Your task to perform on an android device: turn off priority inbox in the gmail app Image 0: 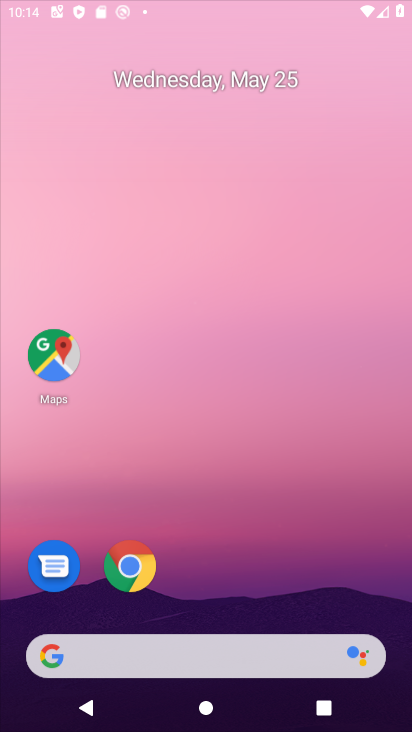
Step 0: click (135, 177)
Your task to perform on an android device: turn off priority inbox in the gmail app Image 1: 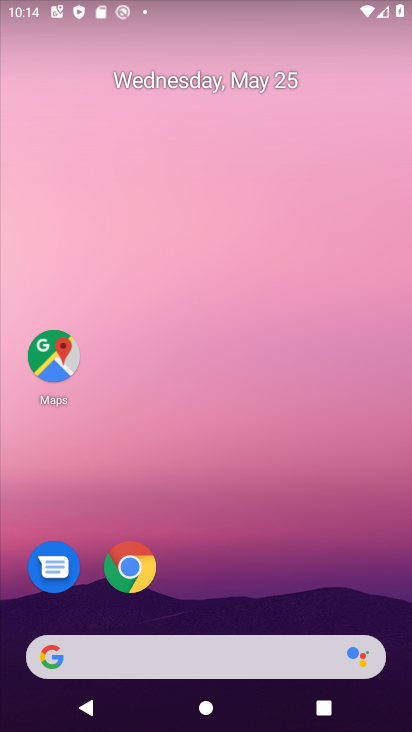
Step 1: drag from (248, 491) to (176, 189)
Your task to perform on an android device: turn off priority inbox in the gmail app Image 2: 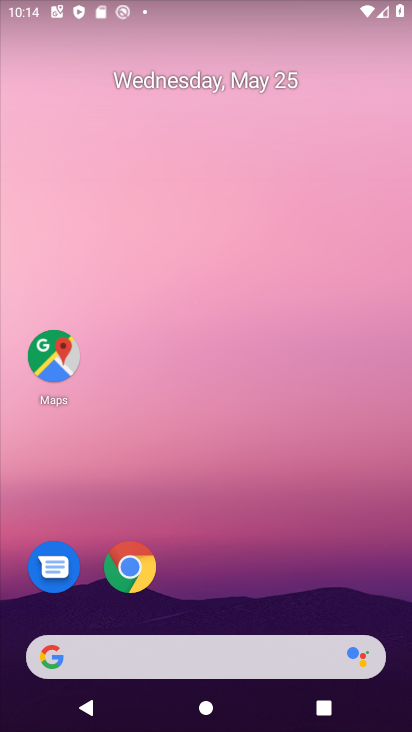
Step 2: drag from (226, 494) to (234, 0)
Your task to perform on an android device: turn off priority inbox in the gmail app Image 3: 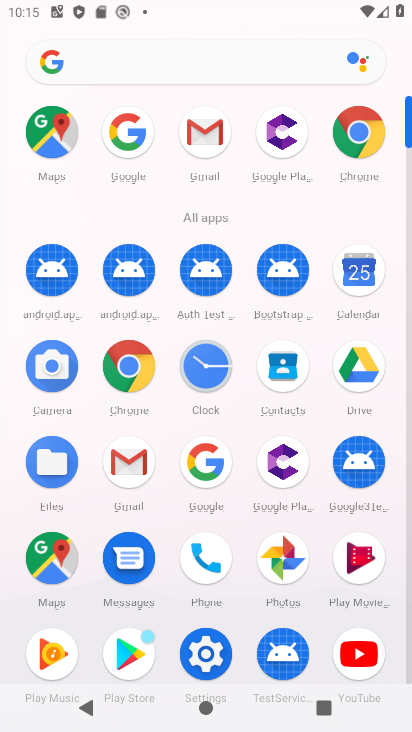
Step 3: click (122, 469)
Your task to perform on an android device: turn off priority inbox in the gmail app Image 4: 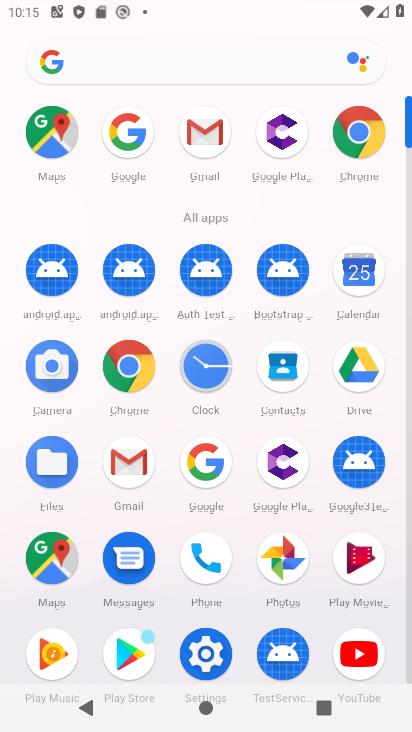
Step 4: click (138, 462)
Your task to perform on an android device: turn off priority inbox in the gmail app Image 5: 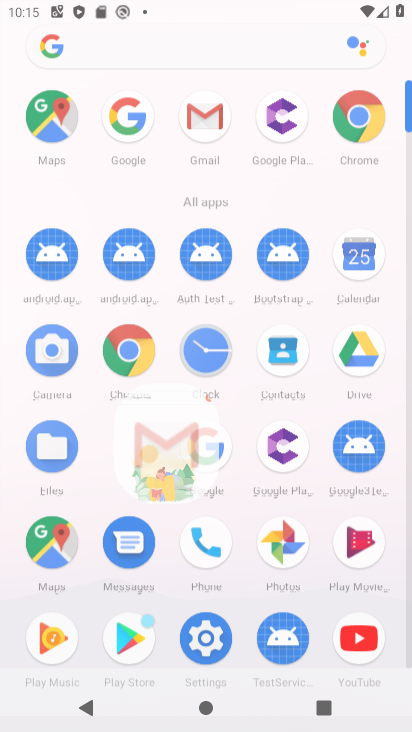
Step 5: click (138, 461)
Your task to perform on an android device: turn off priority inbox in the gmail app Image 6: 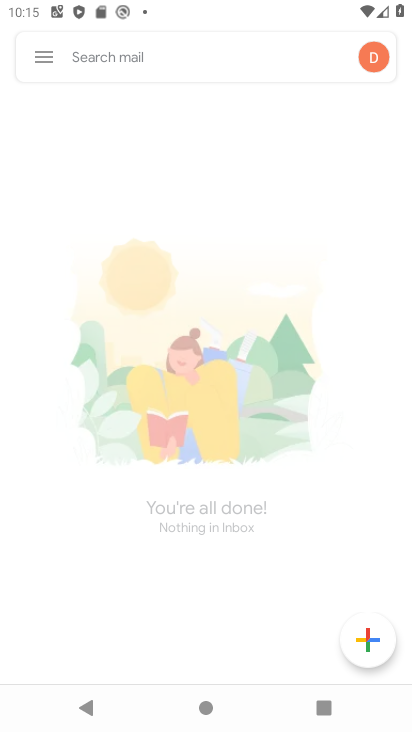
Step 6: drag from (44, 51) to (39, 133)
Your task to perform on an android device: turn off priority inbox in the gmail app Image 7: 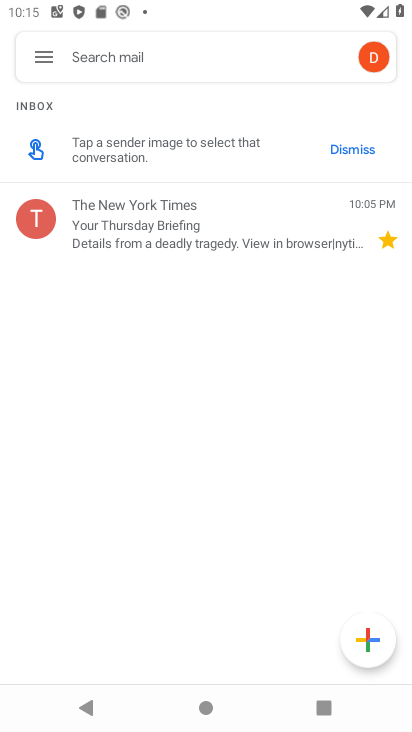
Step 7: click (41, 58)
Your task to perform on an android device: turn off priority inbox in the gmail app Image 8: 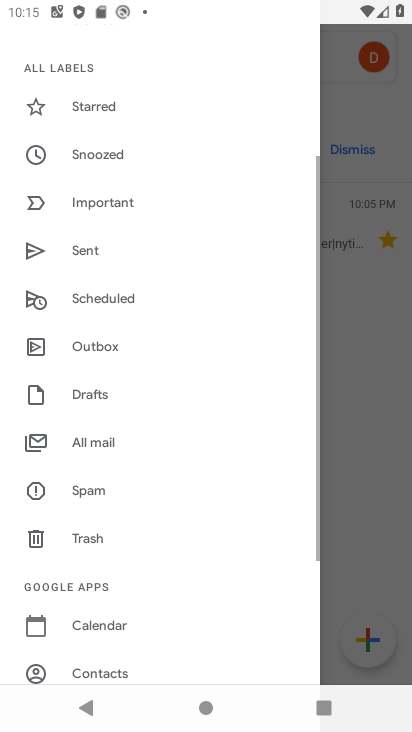
Step 8: drag from (111, 578) to (125, 127)
Your task to perform on an android device: turn off priority inbox in the gmail app Image 9: 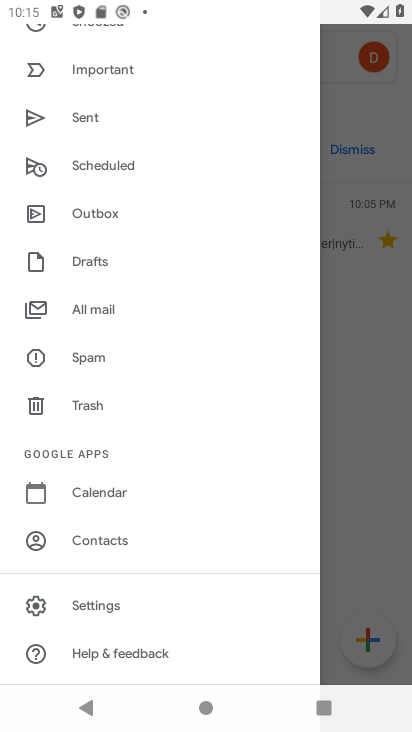
Step 9: click (93, 603)
Your task to perform on an android device: turn off priority inbox in the gmail app Image 10: 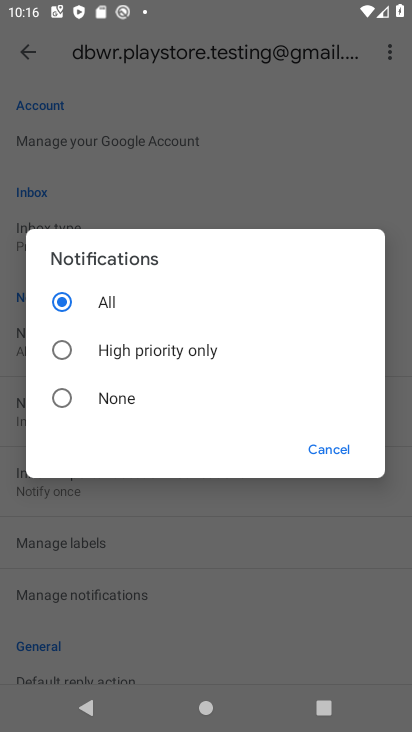
Step 10: click (310, 443)
Your task to perform on an android device: turn off priority inbox in the gmail app Image 11: 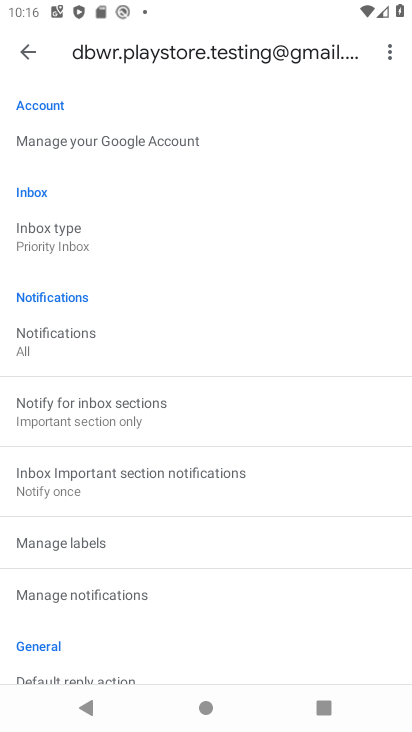
Step 11: click (65, 240)
Your task to perform on an android device: turn off priority inbox in the gmail app Image 12: 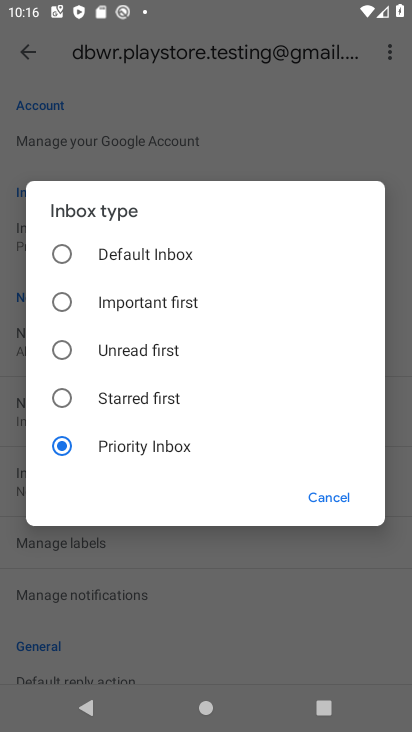
Step 12: task complete